Your task to perform on an android device: Search for seafood restaurants on Google Maps Image 0: 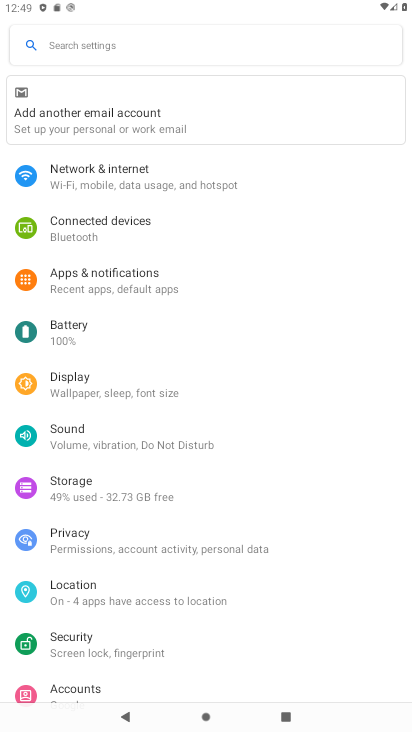
Step 0: press home button
Your task to perform on an android device: Search for seafood restaurants on Google Maps Image 1: 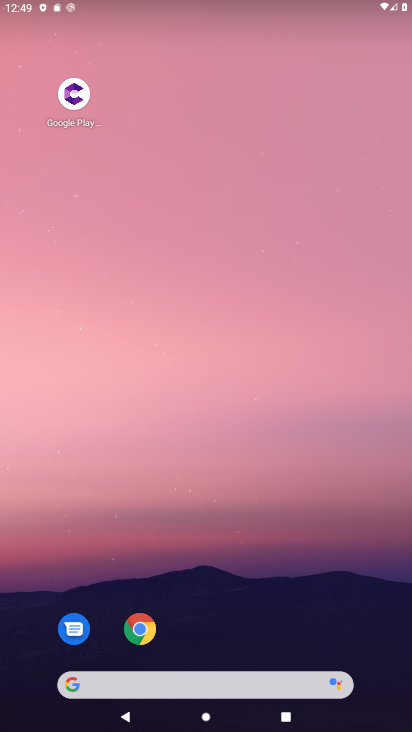
Step 1: drag from (185, 599) to (252, 56)
Your task to perform on an android device: Search for seafood restaurants on Google Maps Image 2: 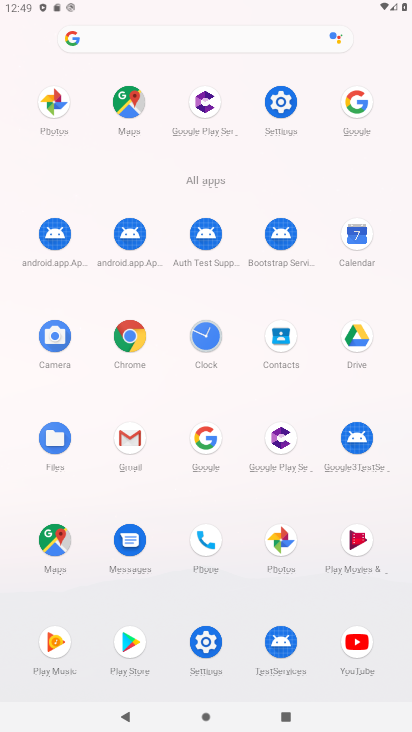
Step 2: click (54, 541)
Your task to perform on an android device: Search for seafood restaurants on Google Maps Image 3: 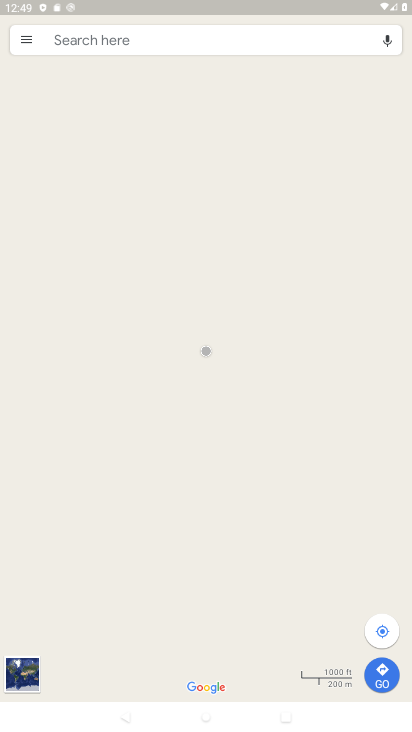
Step 3: click (206, 39)
Your task to perform on an android device: Search for seafood restaurants on Google Maps Image 4: 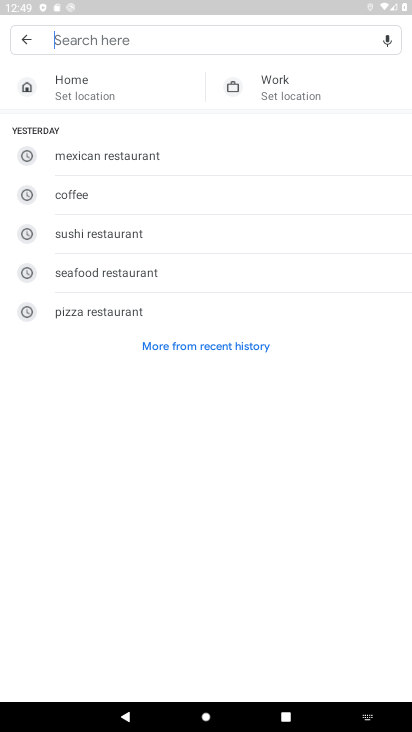
Step 4: type "seafood restaurants"
Your task to perform on an android device: Search for seafood restaurants on Google Maps Image 5: 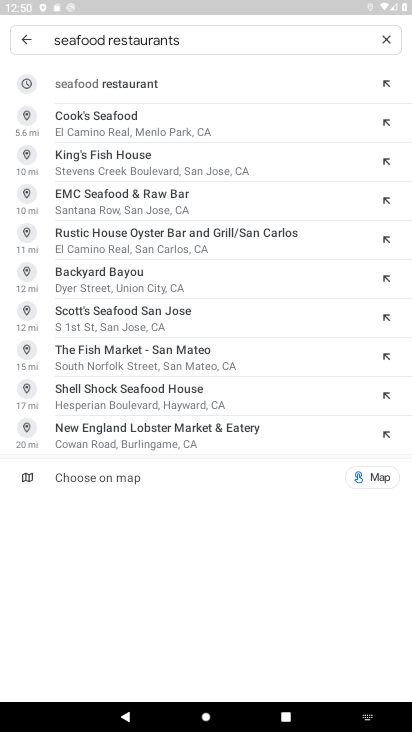
Step 5: click (138, 83)
Your task to perform on an android device: Search for seafood restaurants on Google Maps Image 6: 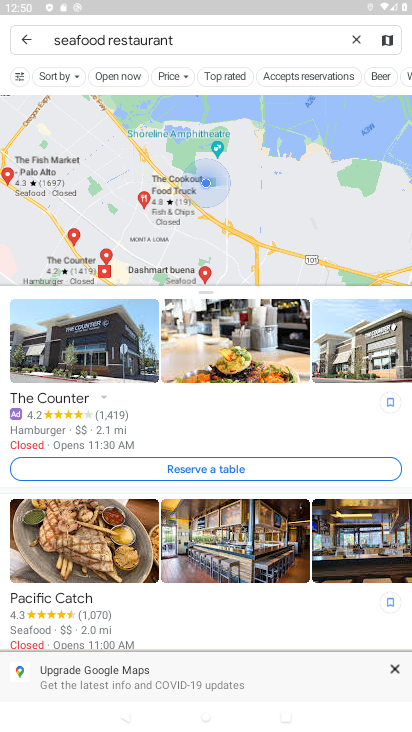
Step 6: task complete